Your task to perform on an android device: turn on notifications settings in the gmail app Image 0: 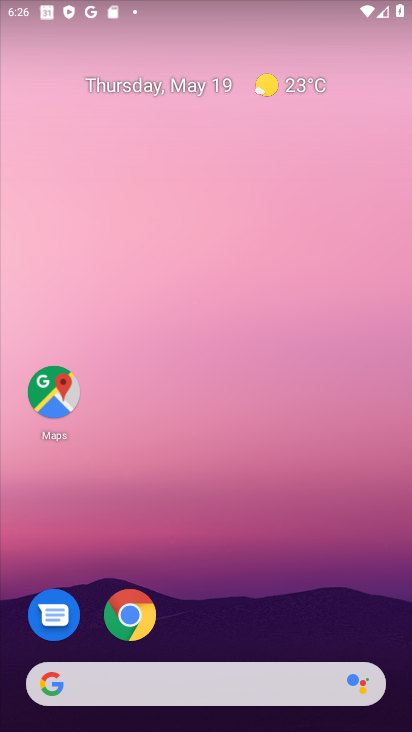
Step 0: drag from (348, 632) to (329, 62)
Your task to perform on an android device: turn on notifications settings in the gmail app Image 1: 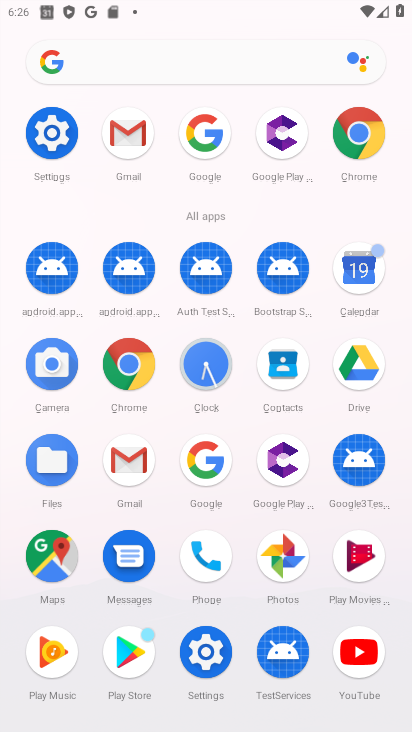
Step 1: click (129, 481)
Your task to perform on an android device: turn on notifications settings in the gmail app Image 2: 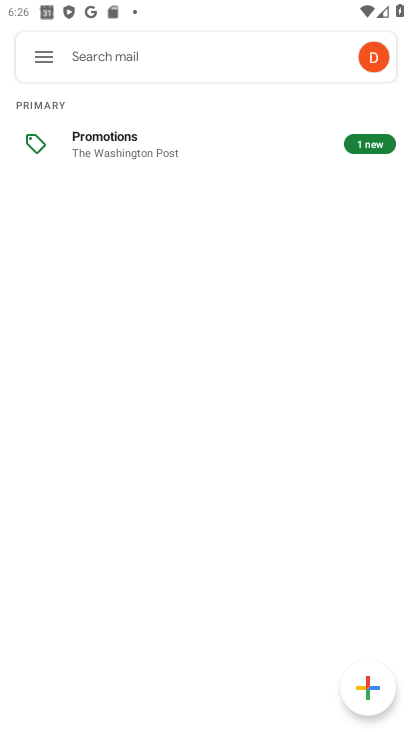
Step 2: click (46, 52)
Your task to perform on an android device: turn on notifications settings in the gmail app Image 3: 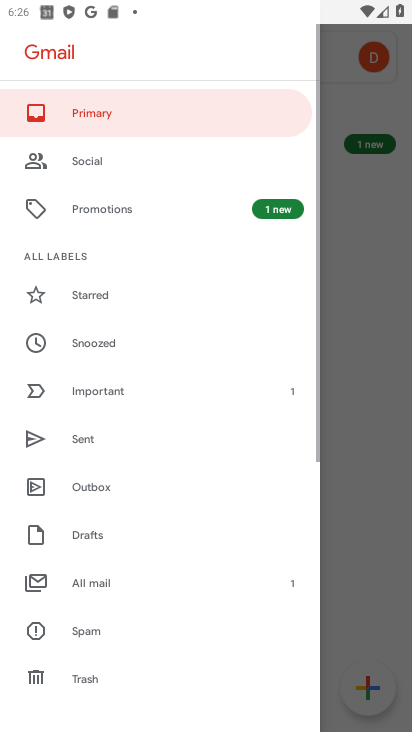
Step 3: drag from (87, 643) to (168, 72)
Your task to perform on an android device: turn on notifications settings in the gmail app Image 4: 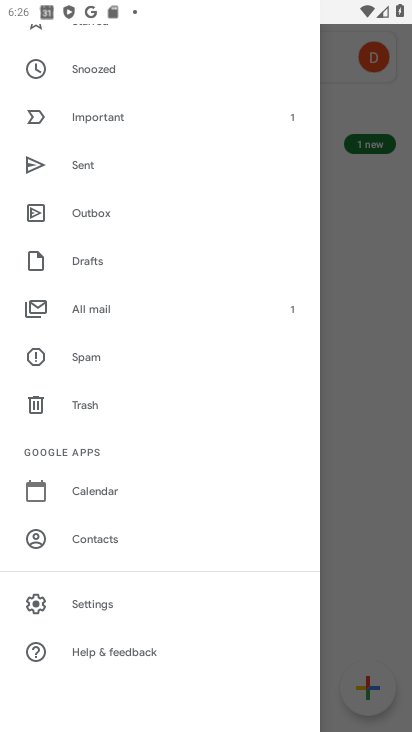
Step 4: click (68, 598)
Your task to perform on an android device: turn on notifications settings in the gmail app Image 5: 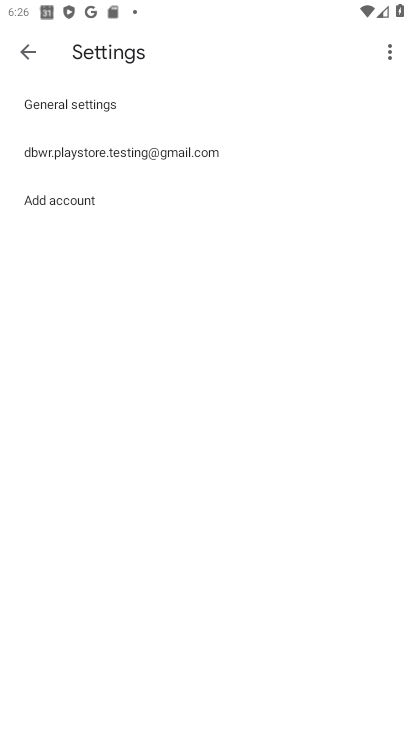
Step 5: click (156, 171)
Your task to perform on an android device: turn on notifications settings in the gmail app Image 6: 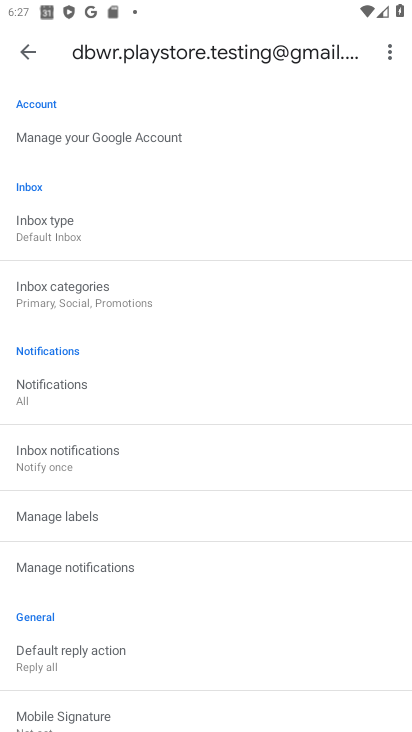
Step 6: click (107, 407)
Your task to perform on an android device: turn on notifications settings in the gmail app Image 7: 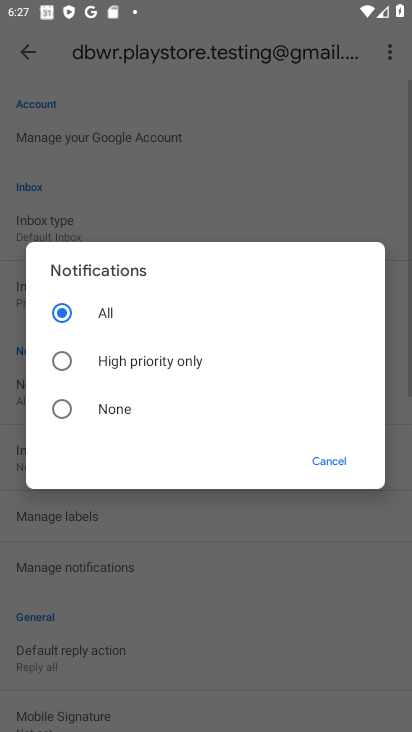
Step 7: click (99, 317)
Your task to perform on an android device: turn on notifications settings in the gmail app Image 8: 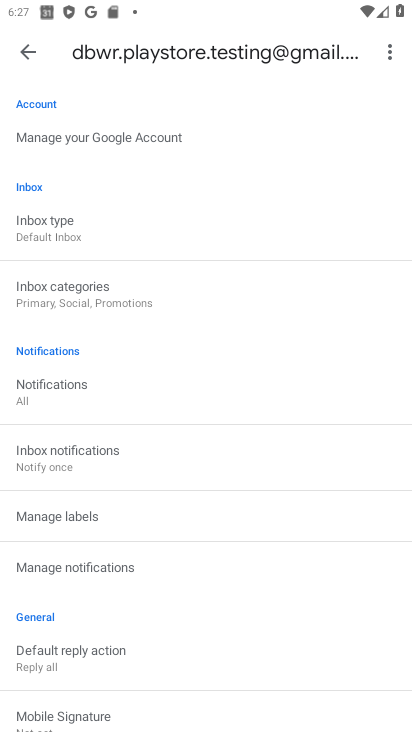
Step 8: task complete